Your task to perform on an android device: Open Chrome and go to settings Image 0: 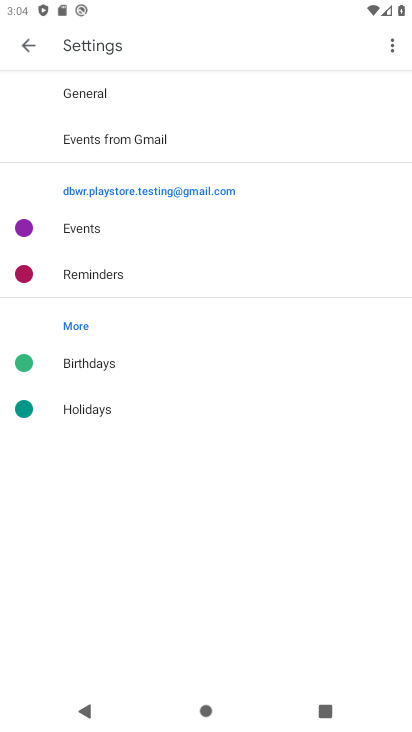
Step 0: press home button
Your task to perform on an android device: Open Chrome and go to settings Image 1: 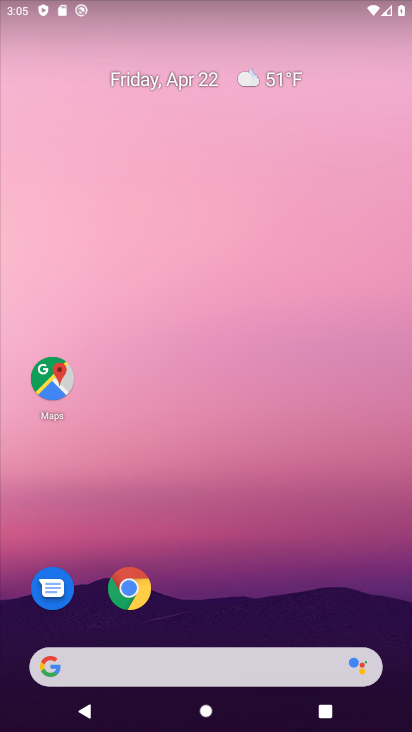
Step 1: drag from (361, 604) to (368, 131)
Your task to perform on an android device: Open Chrome and go to settings Image 2: 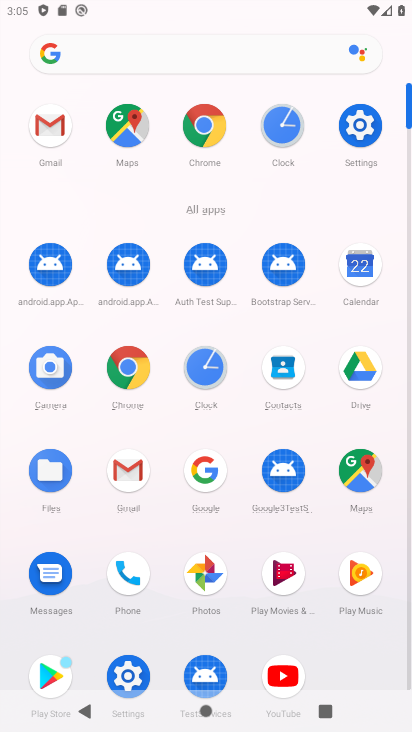
Step 2: click (206, 137)
Your task to perform on an android device: Open Chrome and go to settings Image 3: 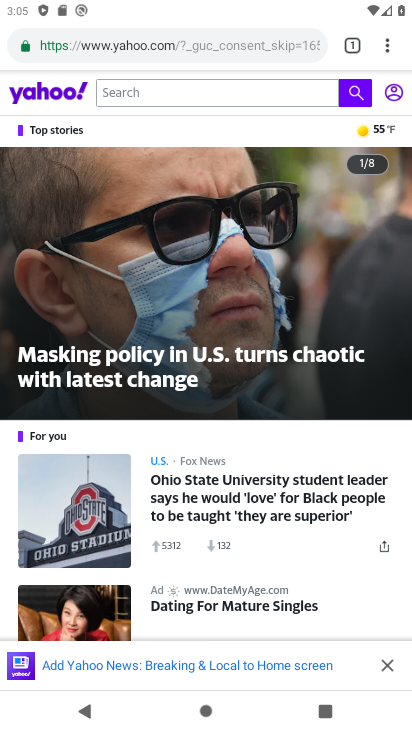
Step 3: click (391, 47)
Your task to perform on an android device: Open Chrome and go to settings Image 4: 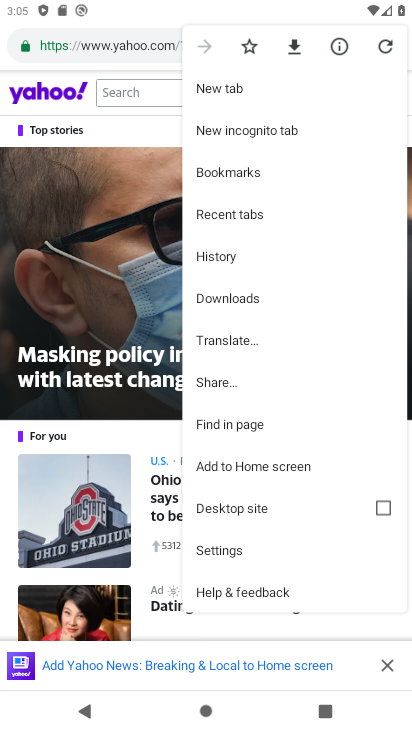
Step 4: click (233, 549)
Your task to perform on an android device: Open Chrome and go to settings Image 5: 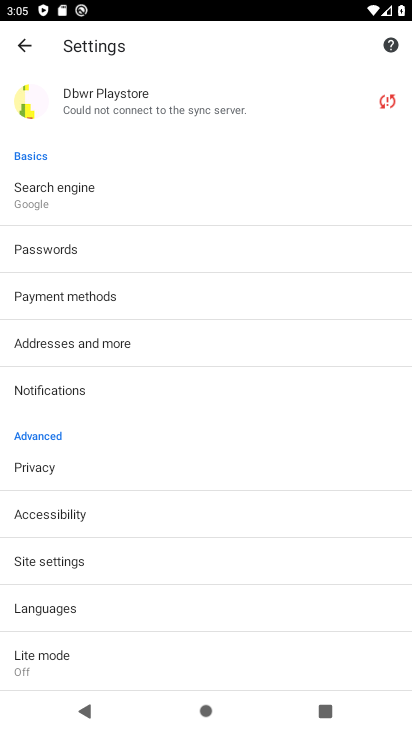
Step 5: task complete